Your task to perform on an android device: toggle show notifications on the lock screen Image 0: 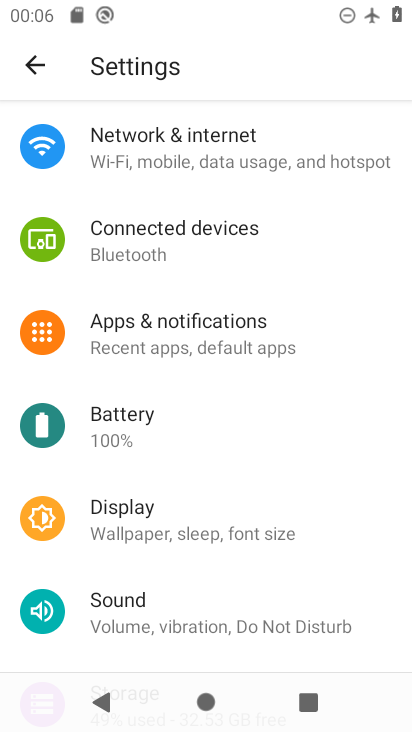
Step 0: click (173, 326)
Your task to perform on an android device: toggle show notifications on the lock screen Image 1: 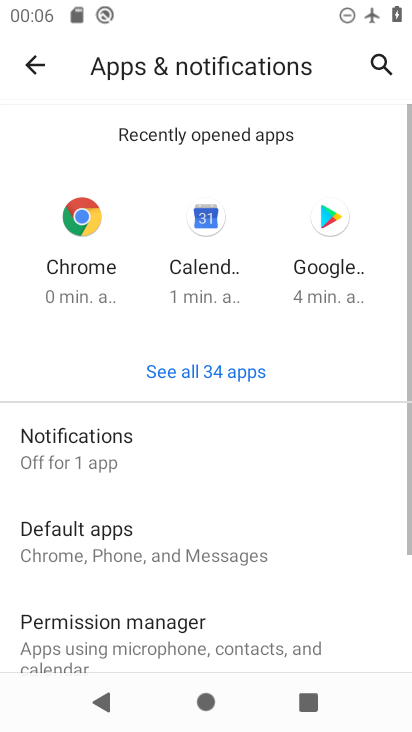
Step 1: drag from (222, 577) to (192, 345)
Your task to perform on an android device: toggle show notifications on the lock screen Image 2: 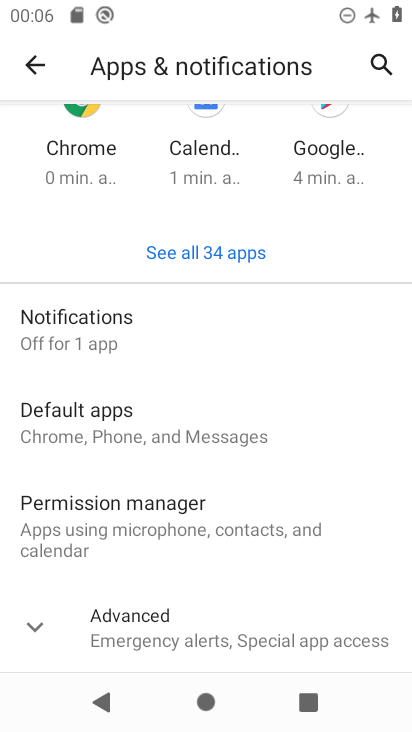
Step 2: click (139, 325)
Your task to perform on an android device: toggle show notifications on the lock screen Image 3: 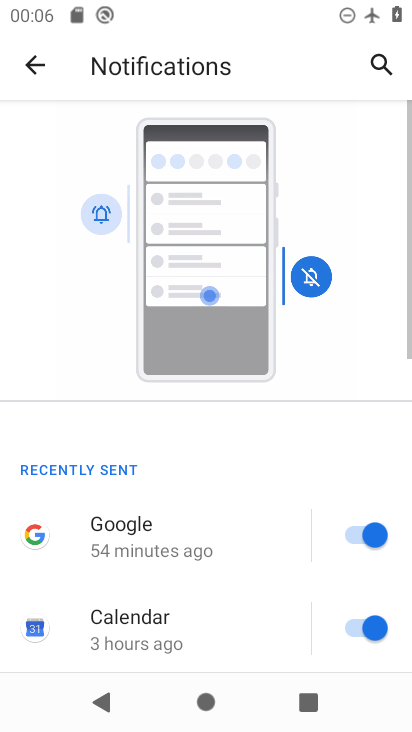
Step 3: drag from (166, 557) to (127, 242)
Your task to perform on an android device: toggle show notifications on the lock screen Image 4: 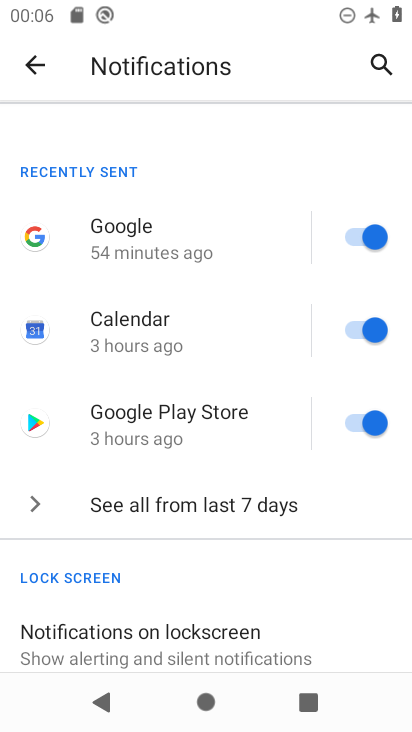
Step 4: drag from (198, 601) to (204, 302)
Your task to perform on an android device: toggle show notifications on the lock screen Image 5: 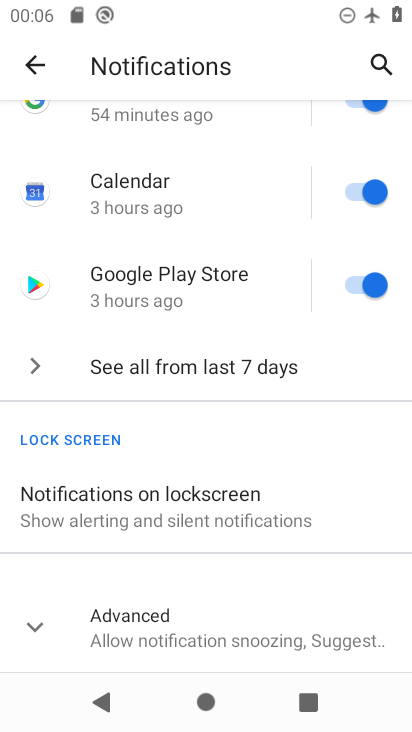
Step 5: click (160, 494)
Your task to perform on an android device: toggle show notifications on the lock screen Image 6: 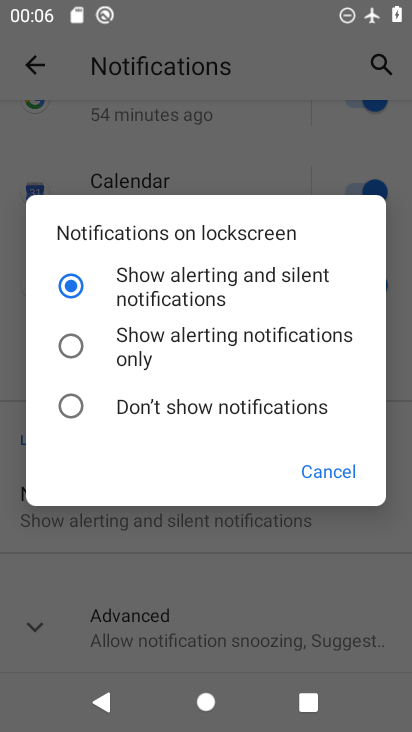
Step 6: click (151, 339)
Your task to perform on an android device: toggle show notifications on the lock screen Image 7: 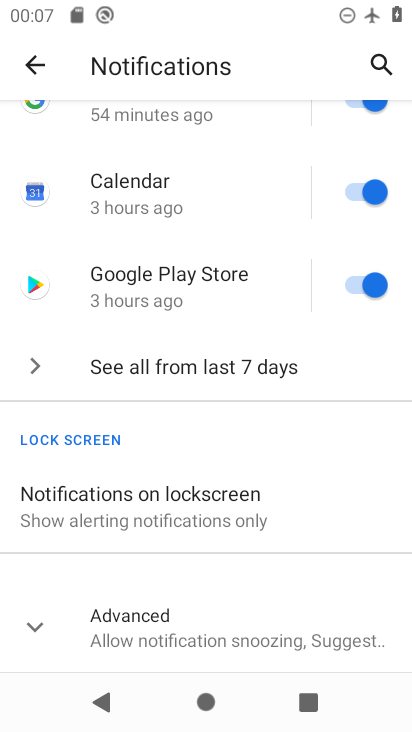
Step 7: click (169, 499)
Your task to perform on an android device: toggle show notifications on the lock screen Image 8: 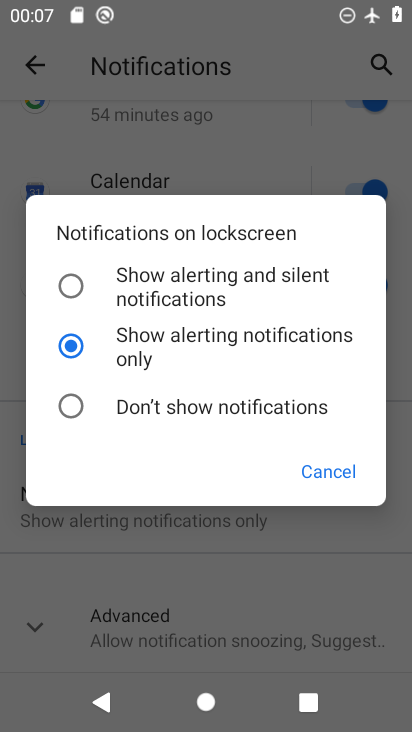
Step 8: task complete